Your task to perform on an android device: Open calendar and show me the first week of next month Image 0: 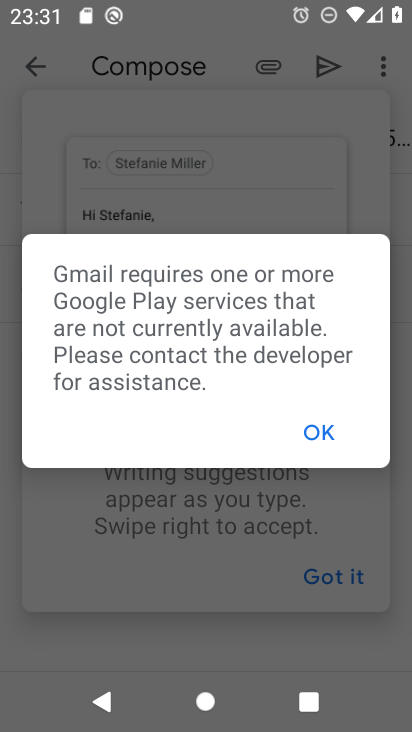
Step 0: press home button
Your task to perform on an android device: Open calendar and show me the first week of next month Image 1: 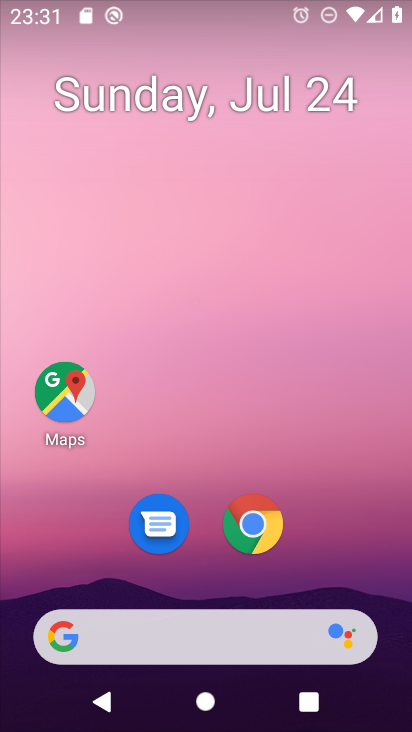
Step 1: drag from (141, 635) to (272, 8)
Your task to perform on an android device: Open calendar and show me the first week of next month Image 2: 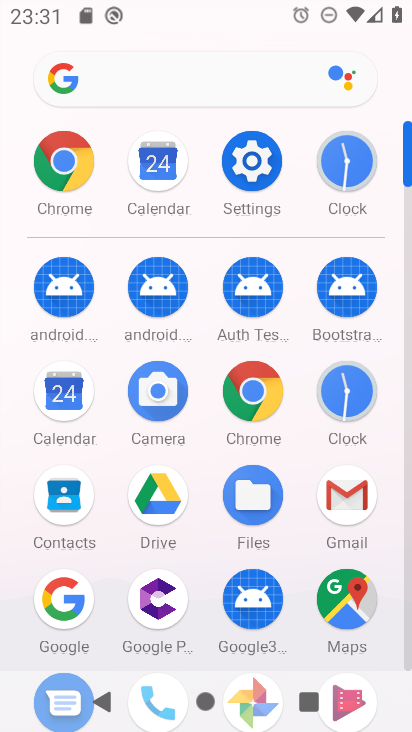
Step 2: click (69, 392)
Your task to perform on an android device: Open calendar and show me the first week of next month Image 3: 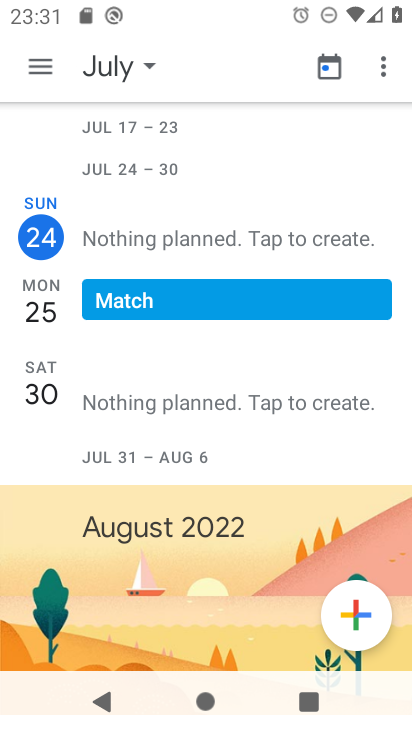
Step 3: click (111, 62)
Your task to perform on an android device: Open calendar and show me the first week of next month Image 4: 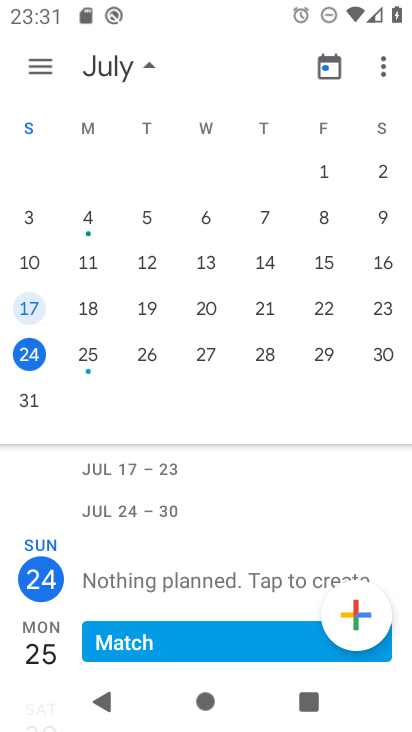
Step 4: drag from (373, 280) to (14, 377)
Your task to perform on an android device: Open calendar and show me the first week of next month Image 5: 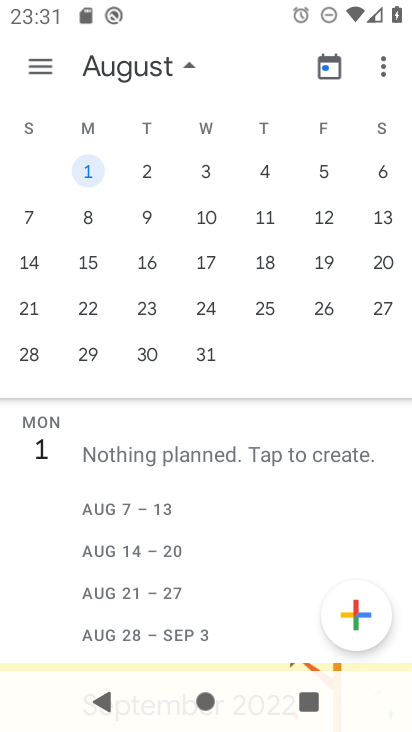
Step 5: click (93, 165)
Your task to perform on an android device: Open calendar and show me the first week of next month Image 6: 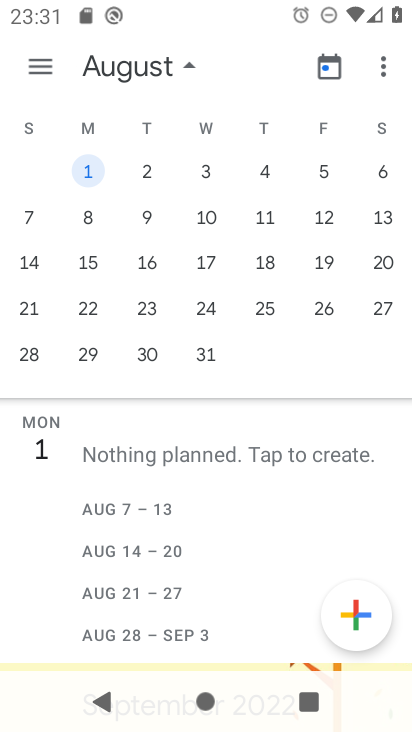
Step 6: click (41, 70)
Your task to perform on an android device: Open calendar and show me the first week of next month Image 7: 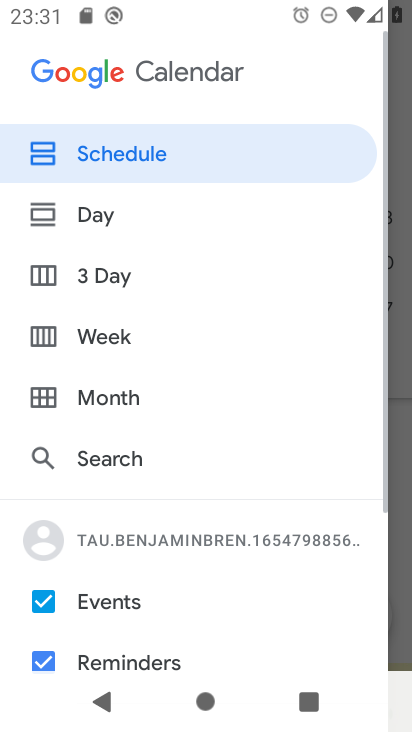
Step 7: click (139, 338)
Your task to perform on an android device: Open calendar and show me the first week of next month Image 8: 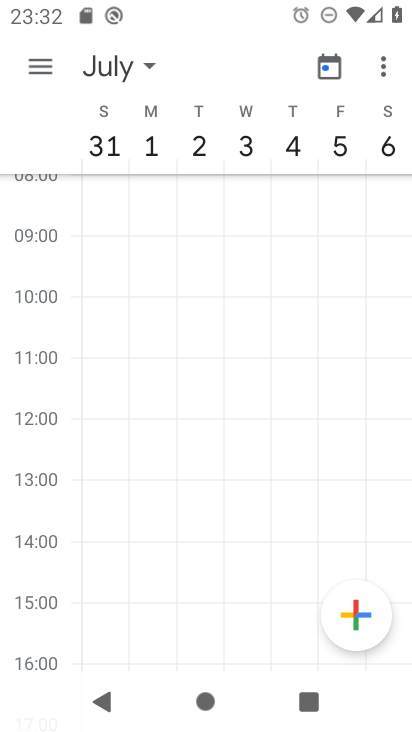
Step 8: task complete